Your task to perform on an android device: Go to network settings Image 0: 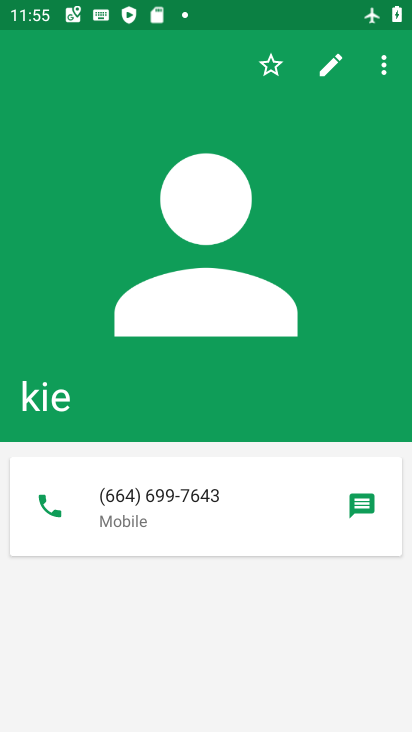
Step 0: press home button
Your task to perform on an android device: Go to network settings Image 1: 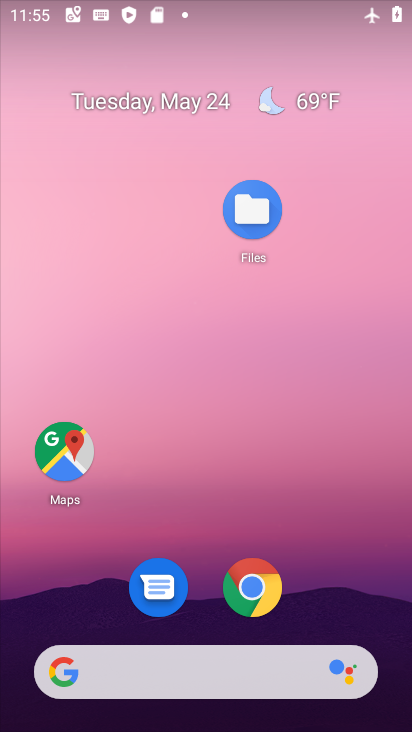
Step 1: drag from (318, 571) to (164, 260)
Your task to perform on an android device: Go to network settings Image 2: 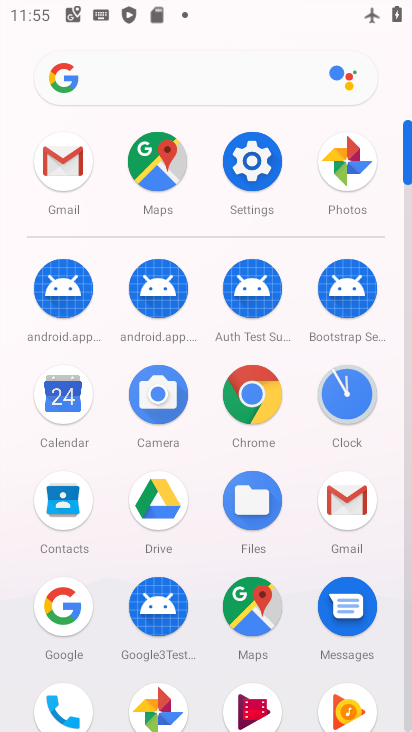
Step 2: click (246, 172)
Your task to perform on an android device: Go to network settings Image 3: 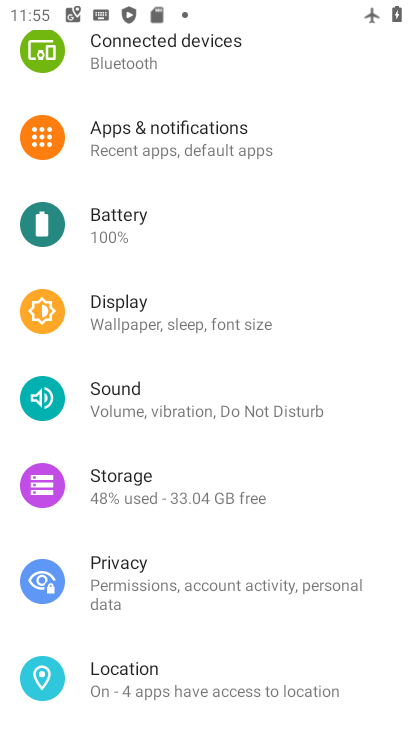
Step 3: drag from (241, 123) to (206, 495)
Your task to perform on an android device: Go to network settings Image 4: 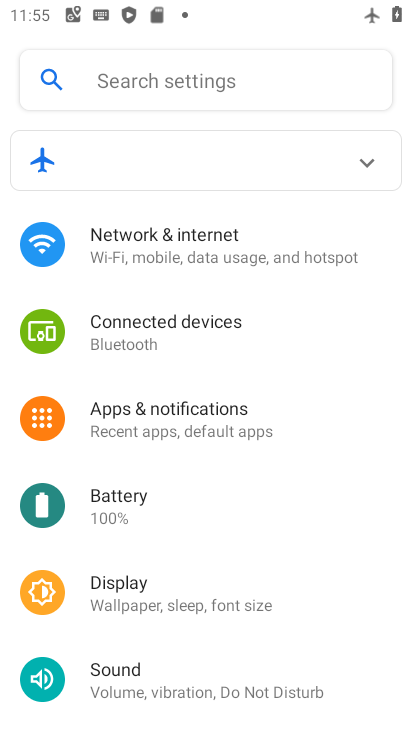
Step 4: click (224, 258)
Your task to perform on an android device: Go to network settings Image 5: 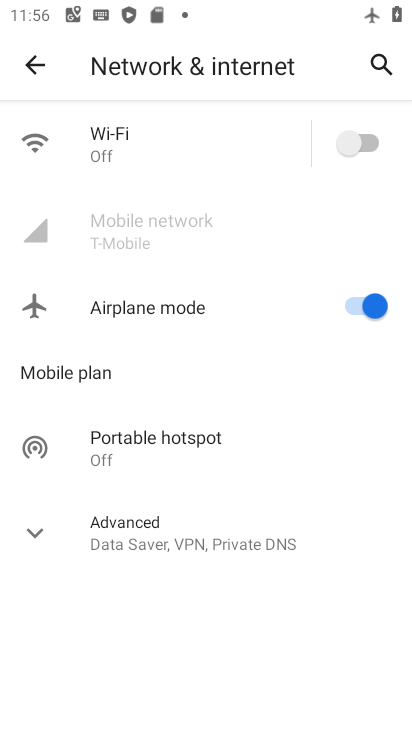
Step 5: click (127, 540)
Your task to perform on an android device: Go to network settings Image 6: 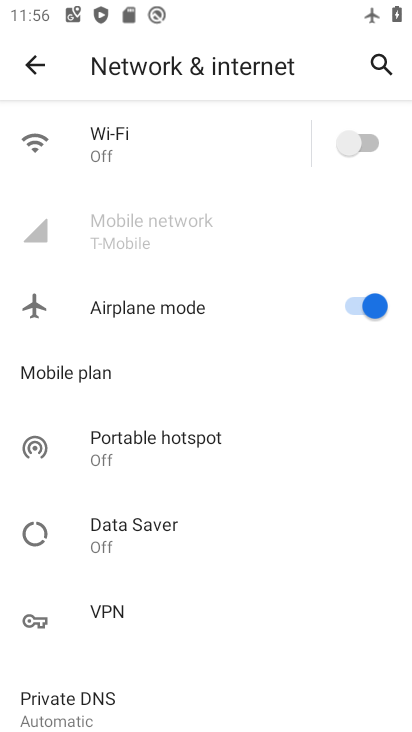
Step 6: task complete